Your task to perform on an android device: Search for sushi restaurants on Maps Image 0: 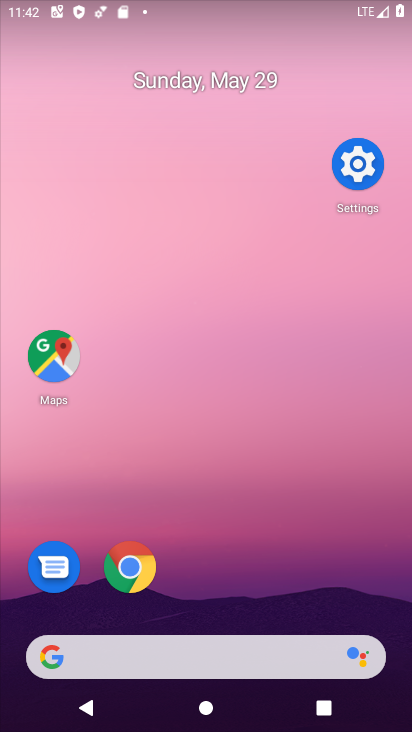
Step 0: drag from (264, 574) to (243, 200)
Your task to perform on an android device: Search for sushi restaurants on Maps Image 1: 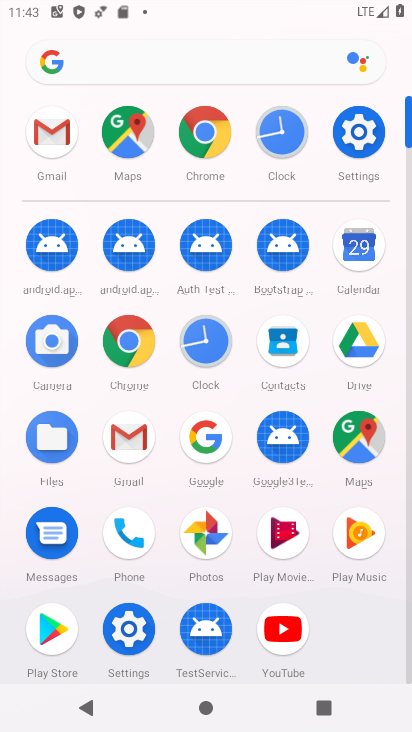
Step 1: click (356, 451)
Your task to perform on an android device: Search for sushi restaurants on Maps Image 2: 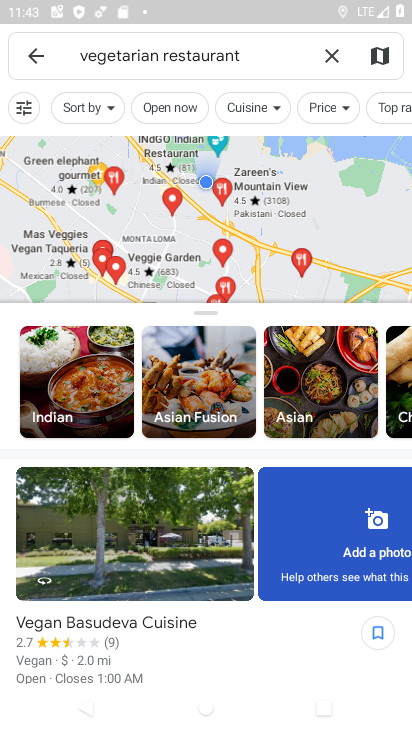
Step 2: click (335, 58)
Your task to perform on an android device: Search for sushi restaurants on Maps Image 3: 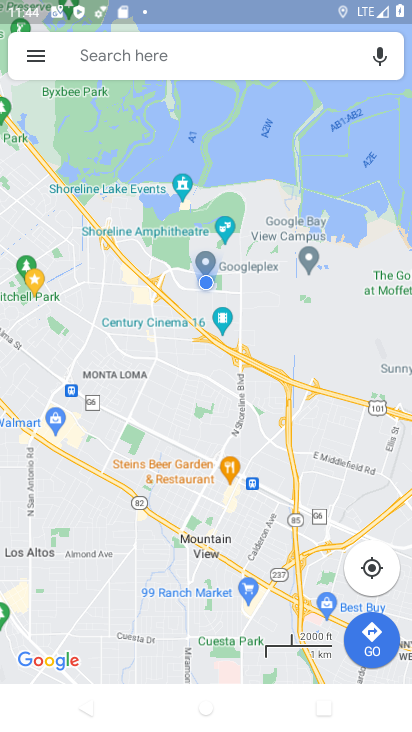
Step 3: click (217, 66)
Your task to perform on an android device: Search for sushi restaurants on Maps Image 4: 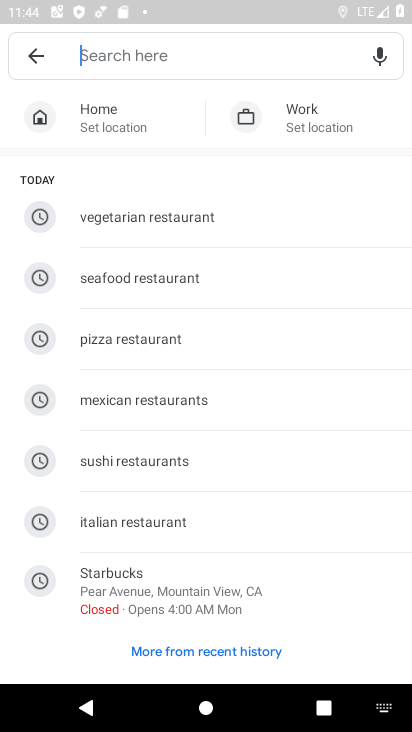
Step 4: click (165, 461)
Your task to perform on an android device: Search for sushi restaurants on Maps Image 5: 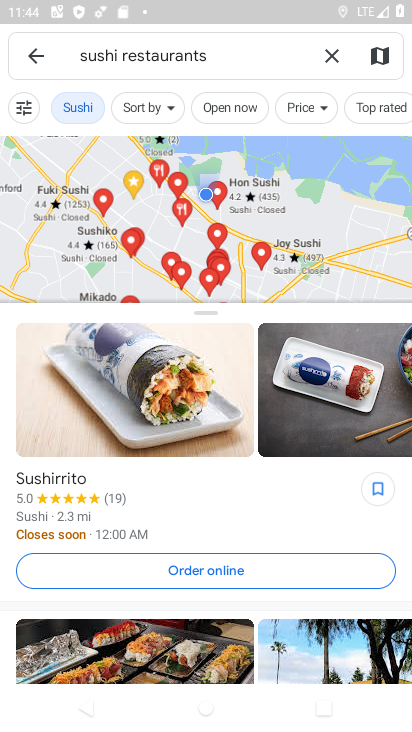
Step 5: task complete